Your task to perform on an android device: change the clock style Image 0: 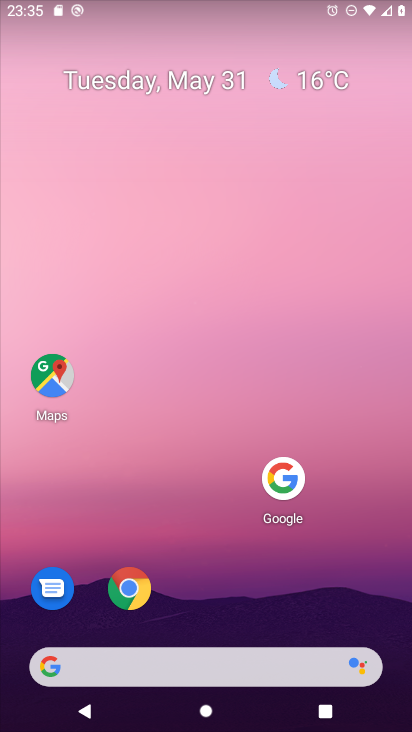
Step 0: press home button
Your task to perform on an android device: change the clock style Image 1: 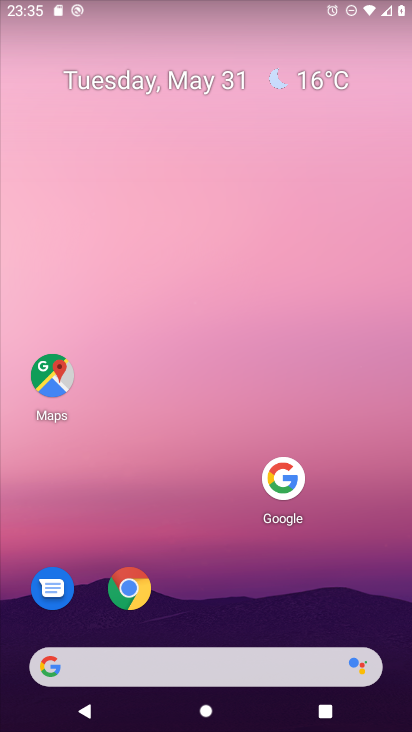
Step 1: drag from (174, 664) to (324, 116)
Your task to perform on an android device: change the clock style Image 2: 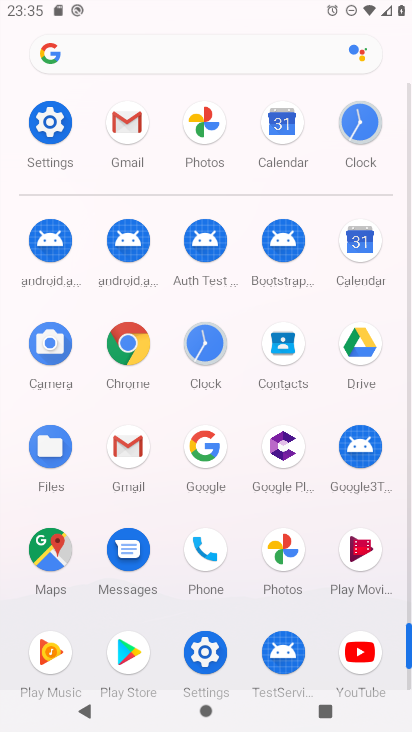
Step 2: click (367, 120)
Your task to perform on an android device: change the clock style Image 3: 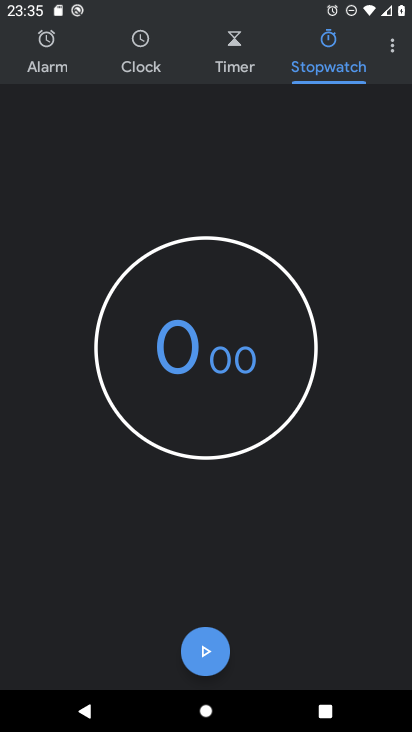
Step 3: click (388, 41)
Your task to perform on an android device: change the clock style Image 4: 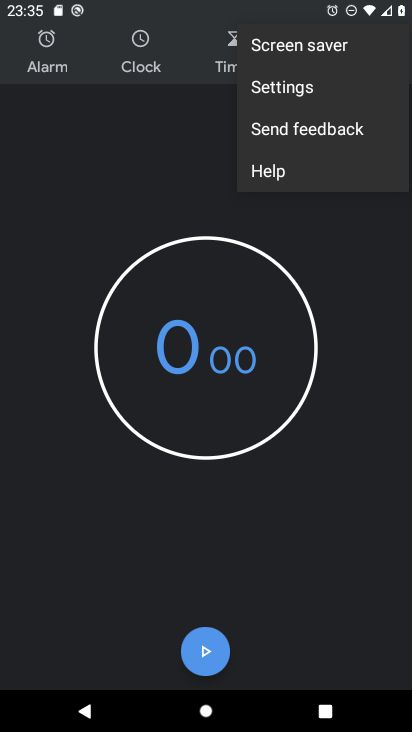
Step 4: click (308, 82)
Your task to perform on an android device: change the clock style Image 5: 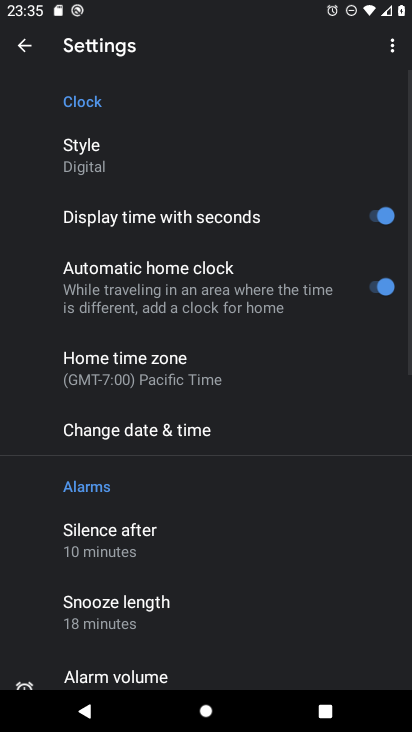
Step 5: click (97, 154)
Your task to perform on an android device: change the clock style Image 6: 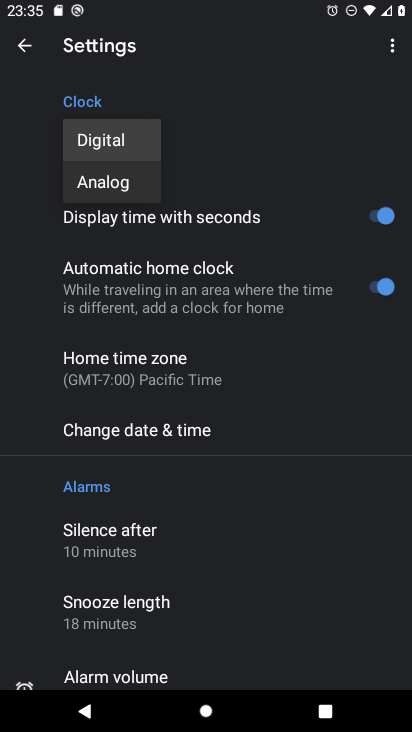
Step 6: click (111, 173)
Your task to perform on an android device: change the clock style Image 7: 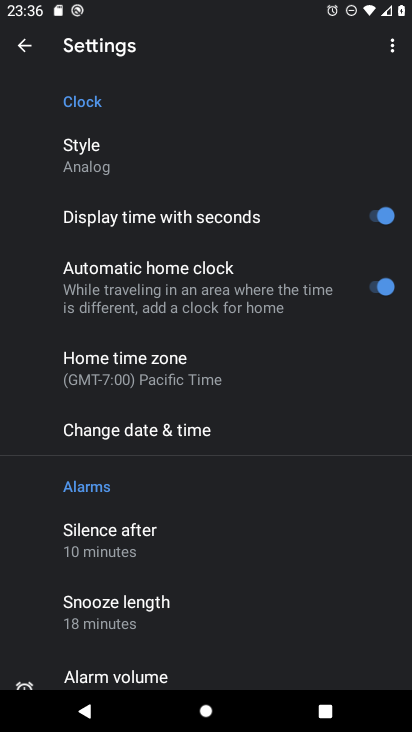
Step 7: task complete